Your task to perform on an android device: turn on notifications settings in the gmail app Image 0: 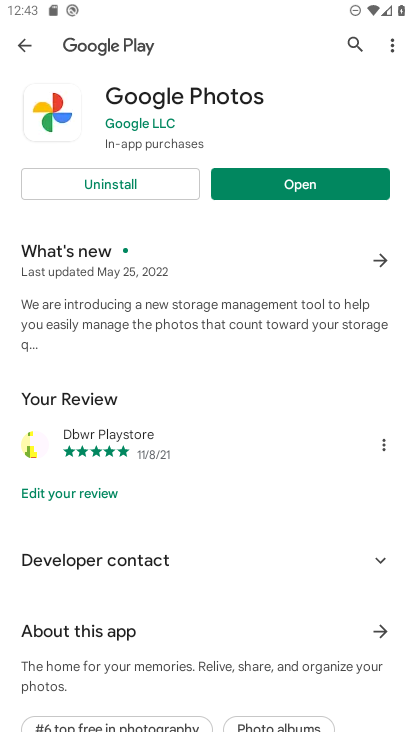
Step 0: press home button
Your task to perform on an android device: turn on notifications settings in the gmail app Image 1: 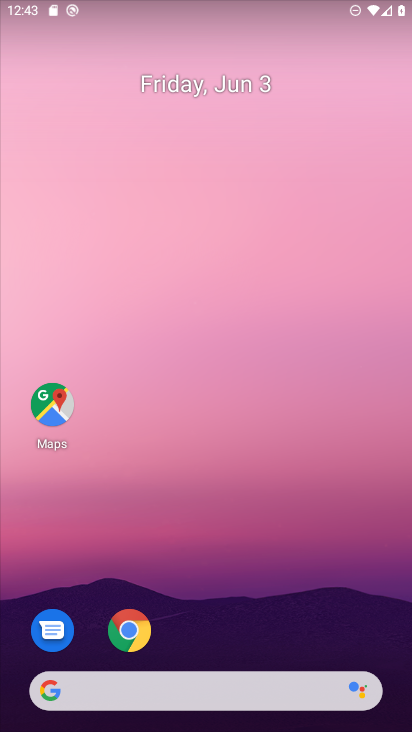
Step 1: drag from (260, 633) to (227, 200)
Your task to perform on an android device: turn on notifications settings in the gmail app Image 2: 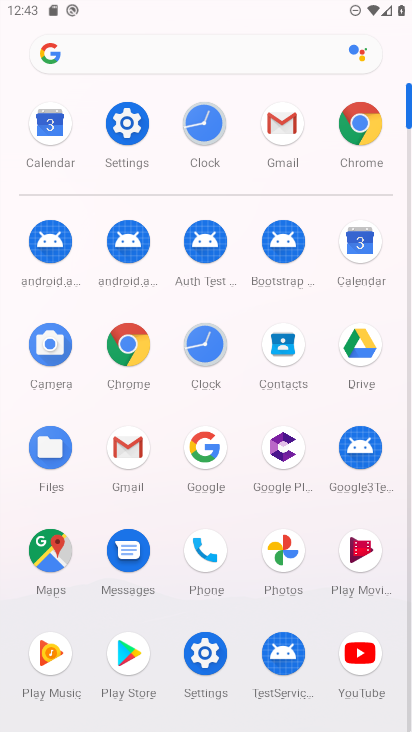
Step 2: click (288, 130)
Your task to perform on an android device: turn on notifications settings in the gmail app Image 3: 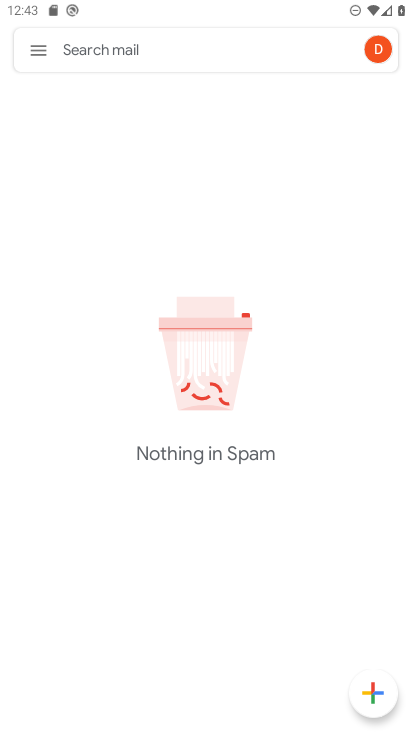
Step 3: click (37, 48)
Your task to perform on an android device: turn on notifications settings in the gmail app Image 4: 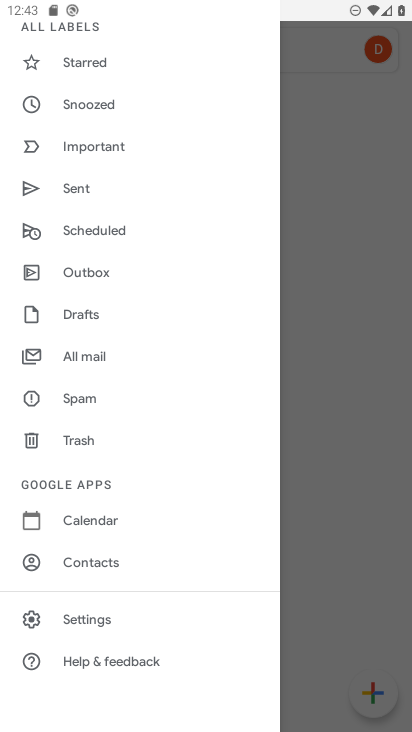
Step 4: click (122, 611)
Your task to perform on an android device: turn on notifications settings in the gmail app Image 5: 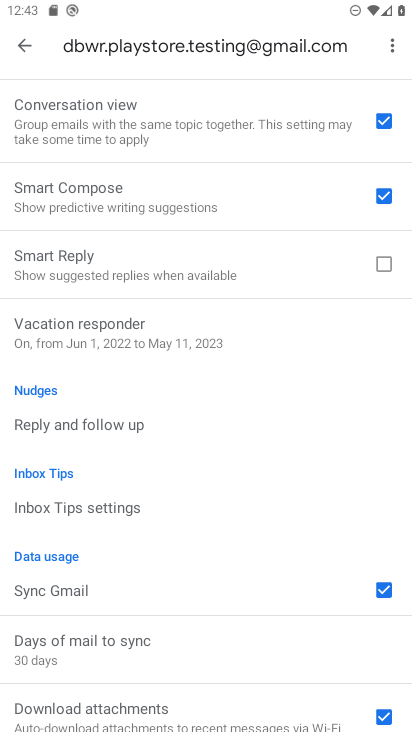
Step 5: drag from (201, 197) to (194, 562)
Your task to perform on an android device: turn on notifications settings in the gmail app Image 6: 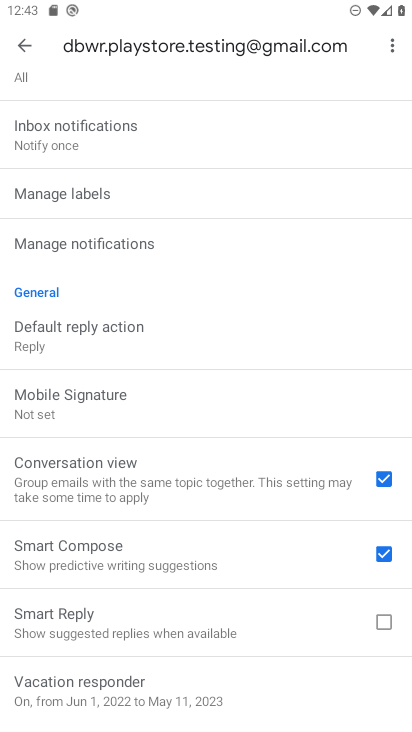
Step 6: drag from (198, 255) to (201, 435)
Your task to perform on an android device: turn on notifications settings in the gmail app Image 7: 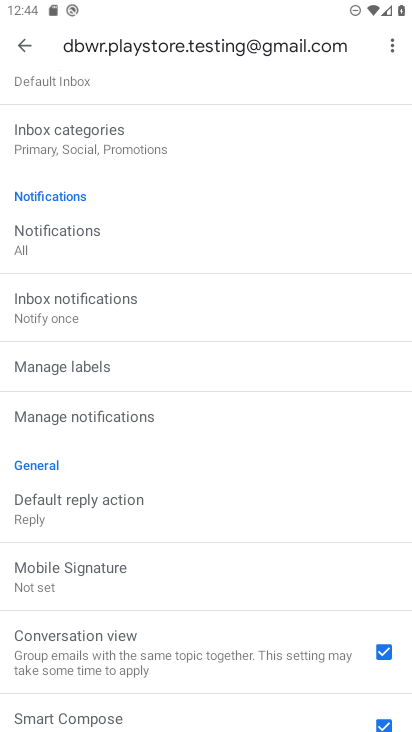
Step 7: click (157, 418)
Your task to perform on an android device: turn on notifications settings in the gmail app Image 8: 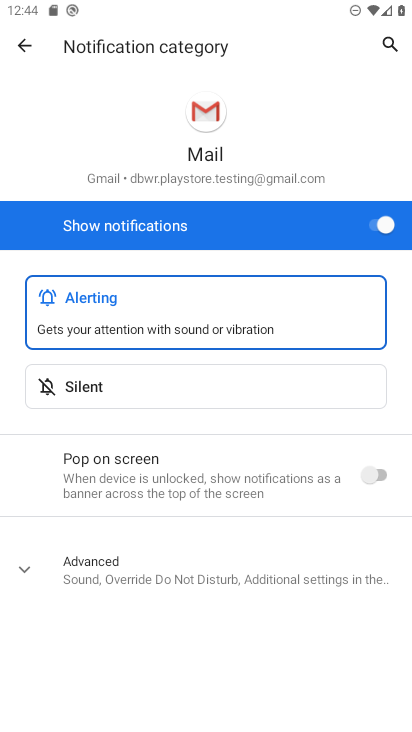
Step 8: click (387, 505)
Your task to perform on an android device: turn on notifications settings in the gmail app Image 9: 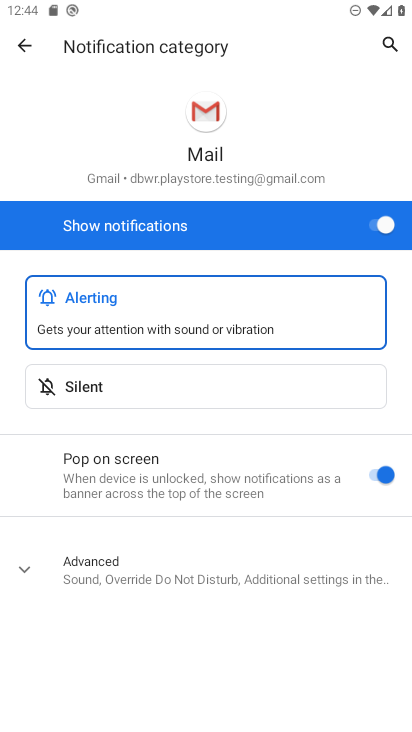
Step 9: task complete